Your task to perform on an android device: turn on showing notifications on the lock screen Image 0: 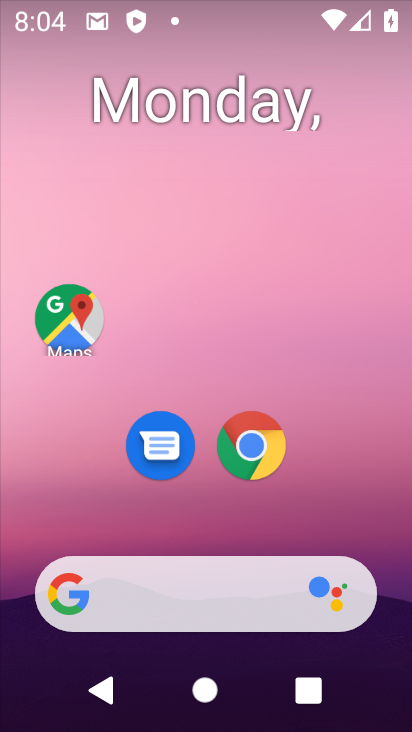
Step 0: drag from (151, 683) to (153, 35)
Your task to perform on an android device: turn on showing notifications on the lock screen Image 1: 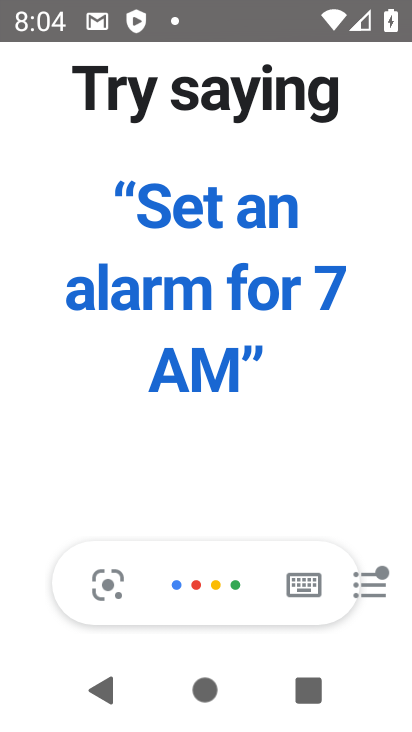
Step 1: press home button
Your task to perform on an android device: turn on showing notifications on the lock screen Image 2: 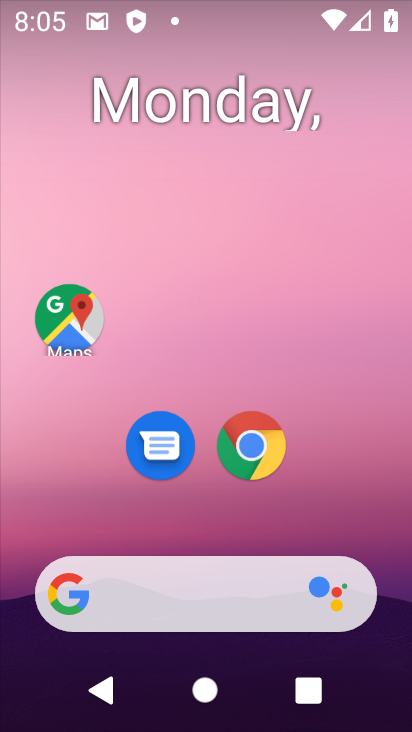
Step 2: drag from (194, 536) to (188, 1)
Your task to perform on an android device: turn on showing notifications on the lock screen Image 3: 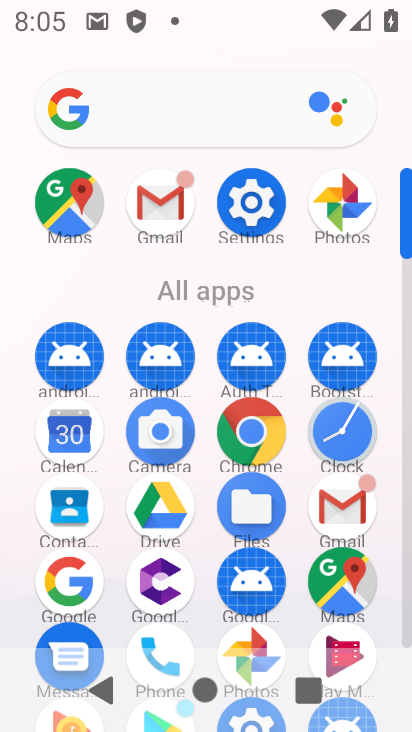
Step 3: click (242, 201)
Your task to perform on an android device: turn on showing notifications on the lock screen Image 4: 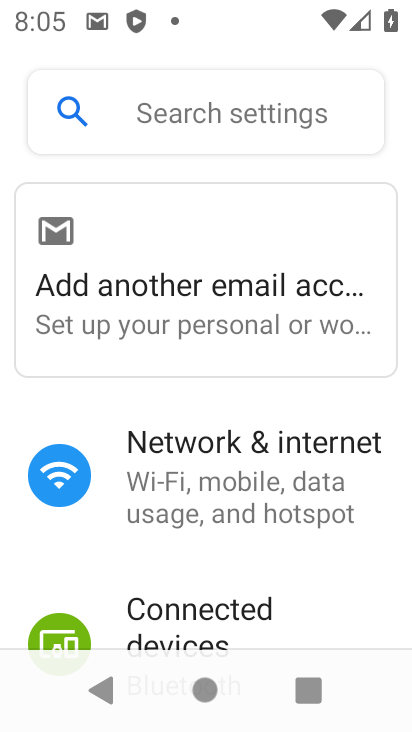
Step 4: drag from (235, 555) to (213, 36)
Your task to perform on an android device: turn on showing notifications on the lock screen Image 5: 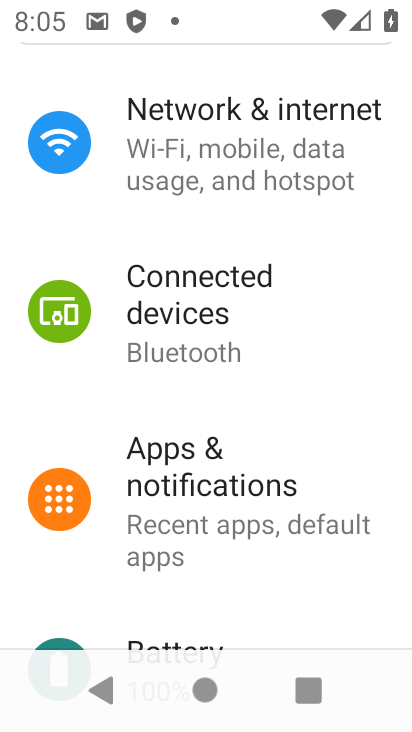
Step 5: drag from (285, 577) to (288, 89)
Your task to perform on an android device: turn on showing notifications on the lock screen Image 6: 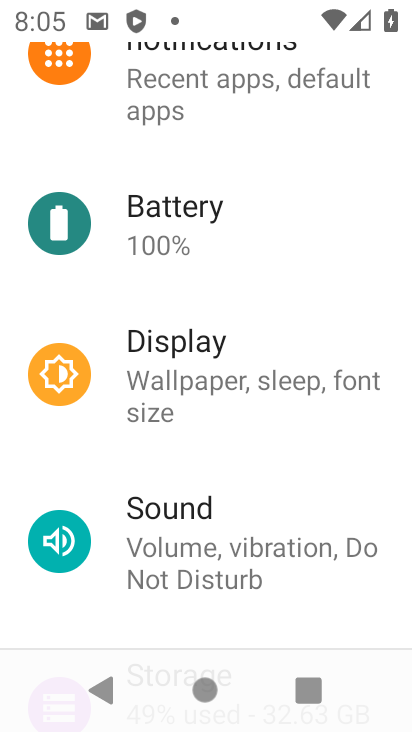
Step 6: drag from (324, 600) to (280, 37)
Your task to perform on an android device: turn on showing notifications on the lock screen Image 7: 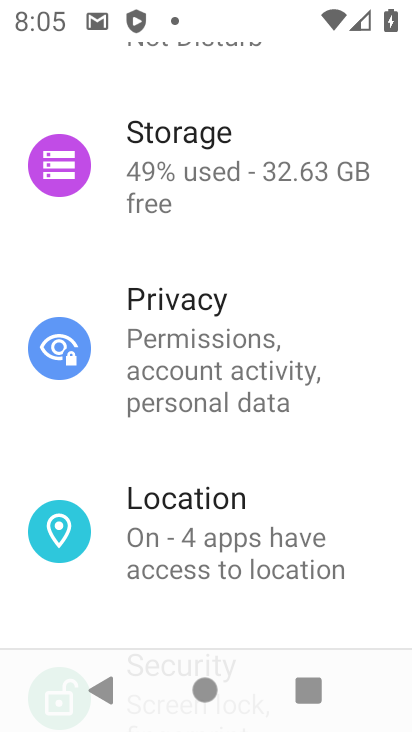
Step 7: drag from (239, 154) to (264, 665)
Your task to perform on an android device: turn on showing notifications on the lock screen Image 8: 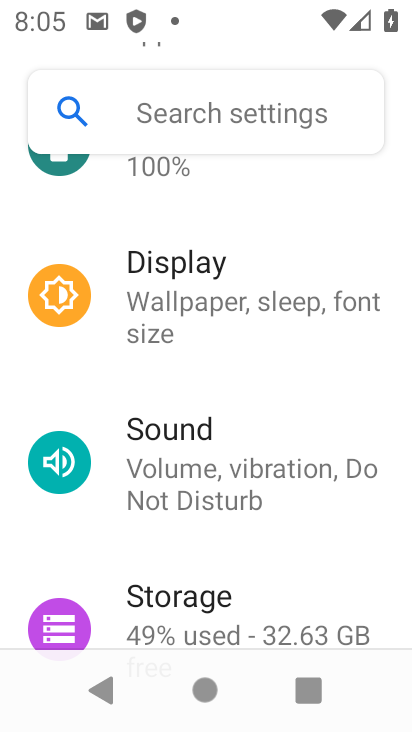
Step 8: drag from (296, 281) to (246, 729)
Your task to perform on an android device: turn on showing notifications on the lock screen Image 9: 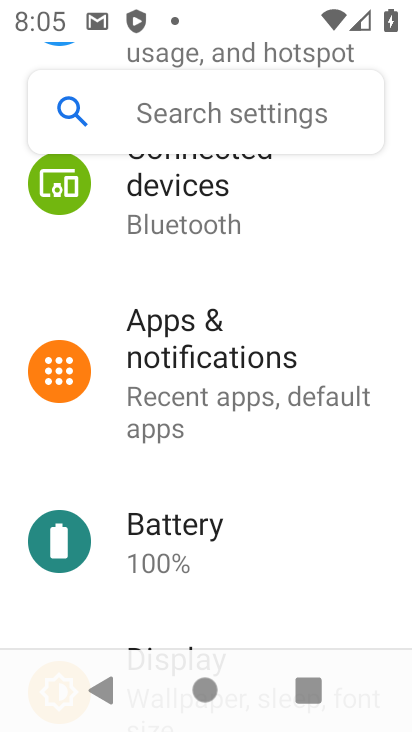
Step 9: click (245, 353)
Your task to perform on an android device: turn on showing notifications on the lock screen Image 10: 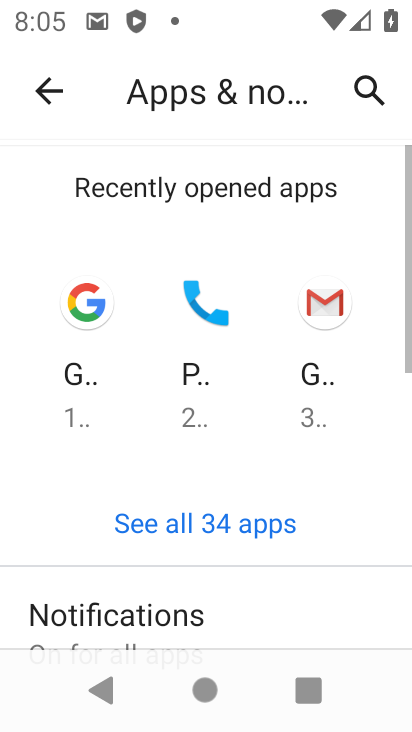
Step 10: drag from (339, 570) to (297, 88)
Your task to perform on an android device: turn on showing notifications on the lock screen Image 11: 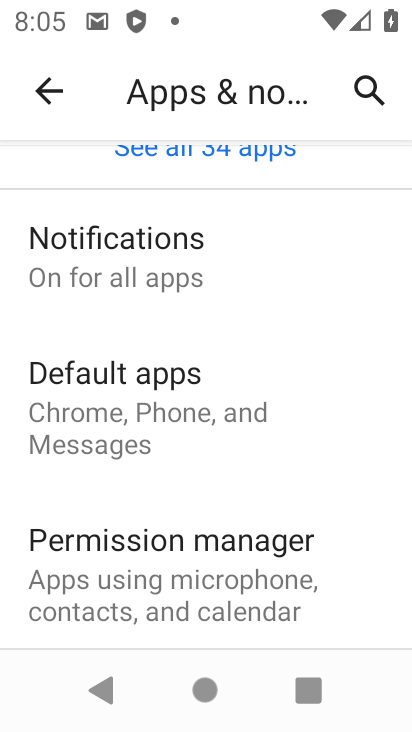
Step 11: click (204, 238)
Your task to perform on an android device: turn on showing notifications on the lock screen Image 12: 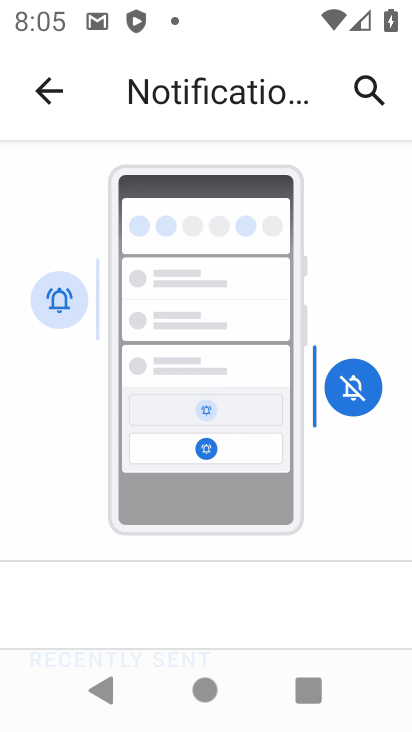
Step 12: drag from (385, 512) to (249, 6)
Your task to perform on an android device: turn on showing notifications on the lock screen Image 13: 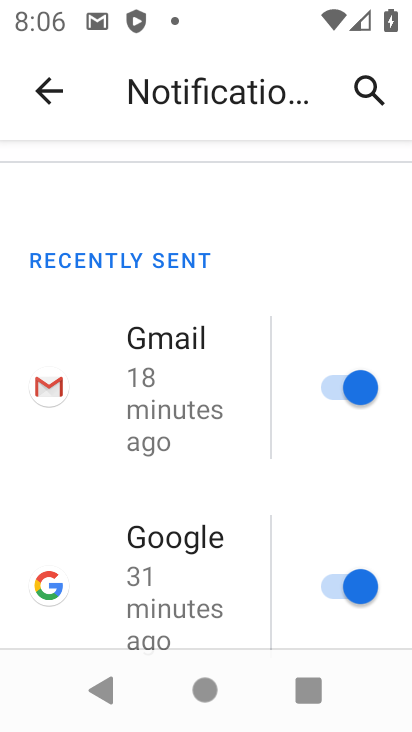
Step 13: drag from (198, 482) to (219, 31)
Your task to perform on an android device: turn on showing notifications on the lock screen Image 14: 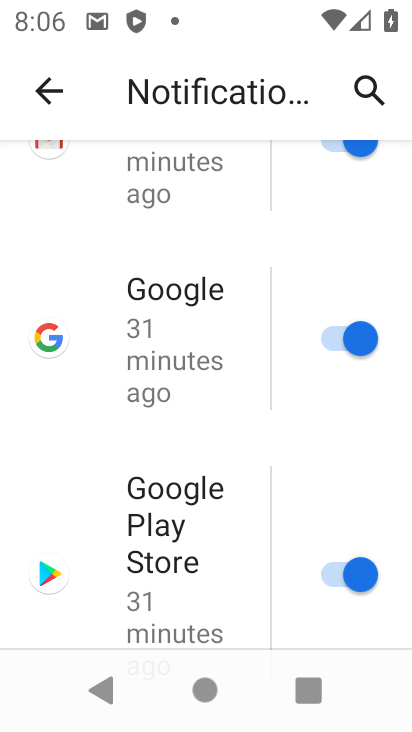
Step 14: drag from (206, 555) to (132, 53)
Your task to perform on an android device: turn on showing notifications on the lock screen Image 15: 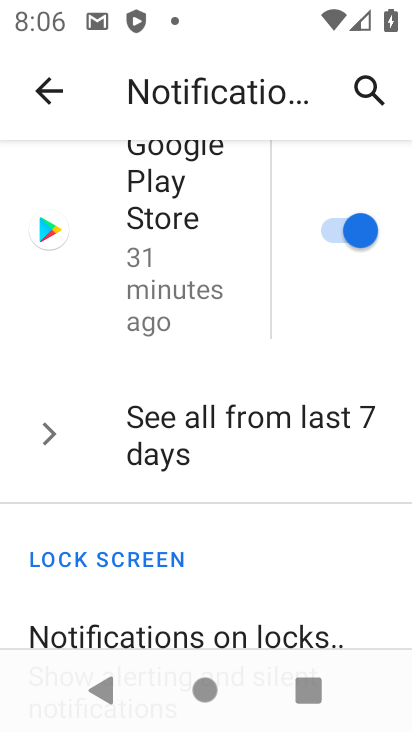
Step 15: click (186, 635)
Your task to perform on an android device: turn on showing notifications on the lock screen Image 16: 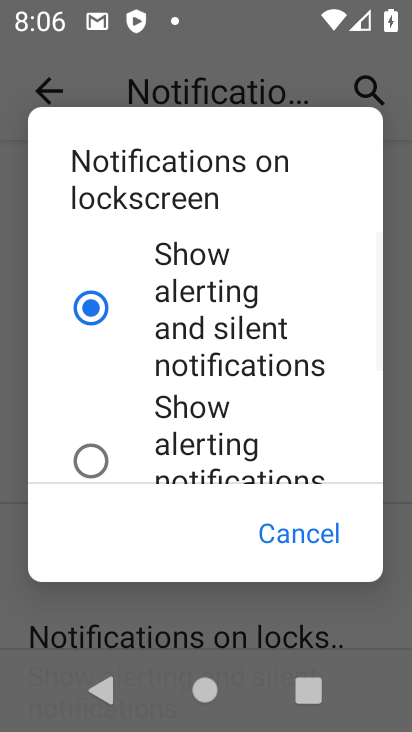
Step 16: task complete